Your task to perform on an android device: What is the news today? Image 0: 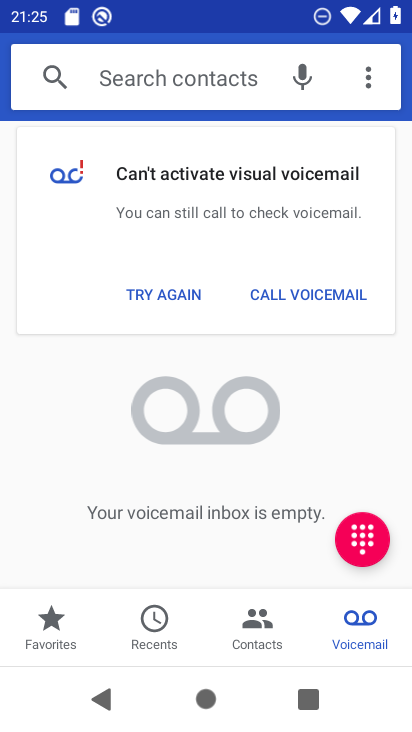
Step 0: press home button
Your task to perform on an android device: What is the news today? Image 1: 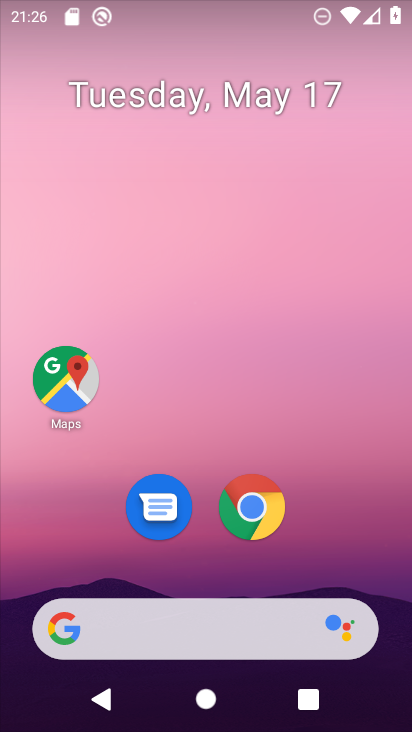
Step 1: click (129, 623)
Your task to perform on an android device: What is the news today? Image 2: 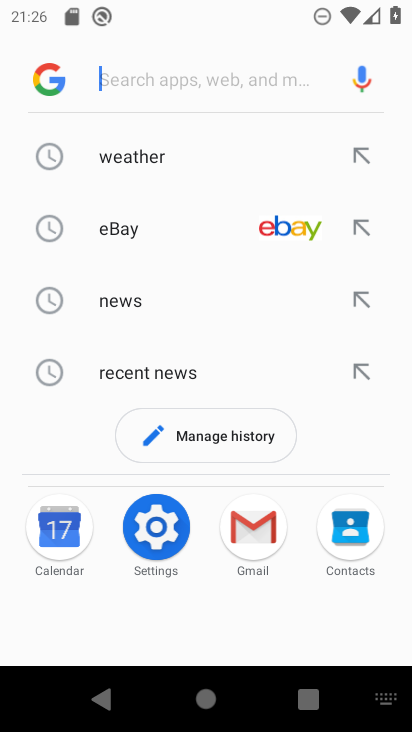
Step 2: click (113, 88)
Your task to perform on an android device: What is the news today? Image 3: 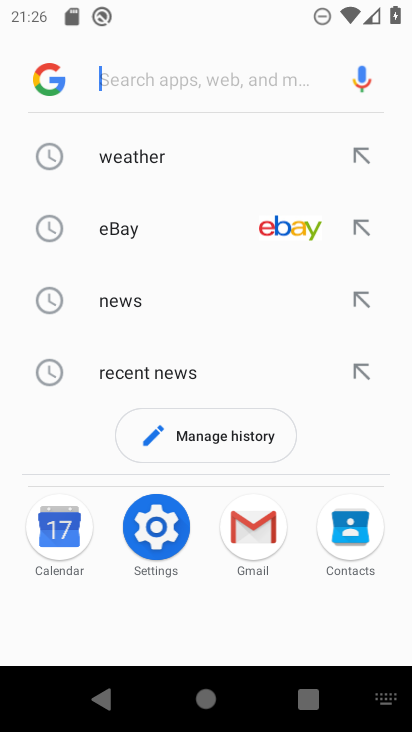
Step 3: type "neews today"
Your task to perform on an android device: What is the news today? Image 4: 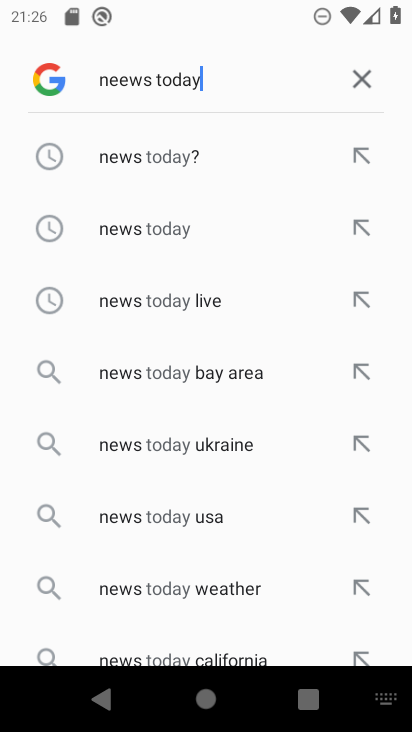
Step 4: click (151, 228)
Your task to perform on an android device: What is the news today? Image 5: 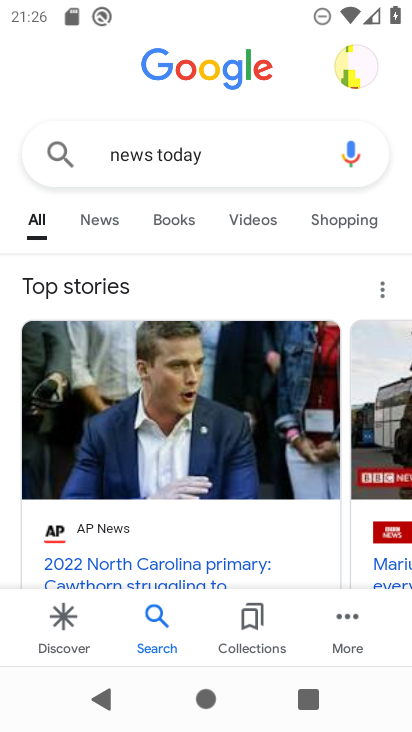
Step 5: drag from (277, 516) to (281, 258)
Your task to perform on an android device: What is the news today? Image 6: 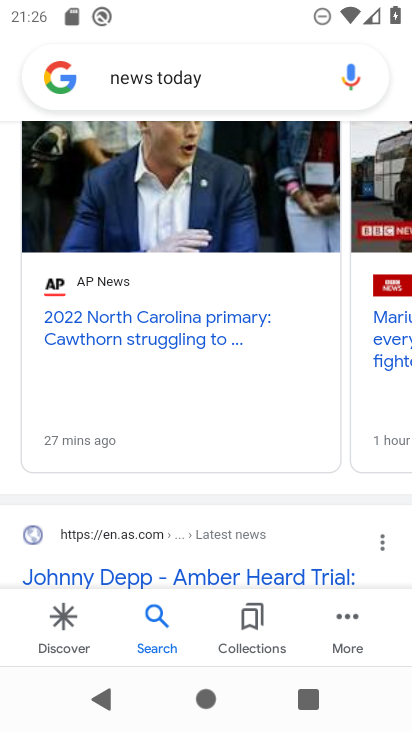
Step 6: click (171, 218)
Your task to perform on an android device: What is the news today? Image 7: 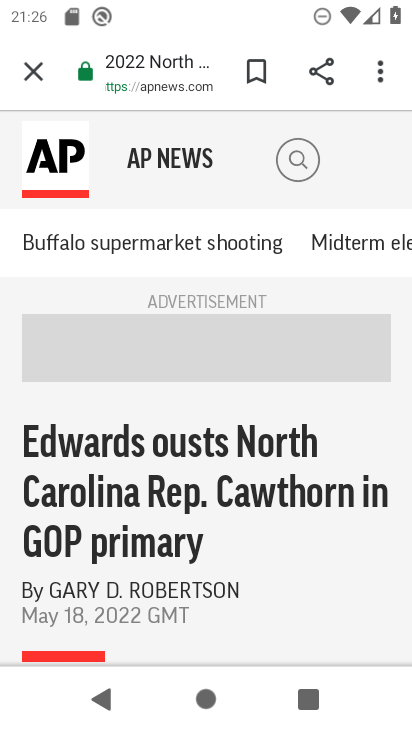
Step 7: task complete